Your task to perform on an android device: remove spam from my inbox in the gmail app Image 0: 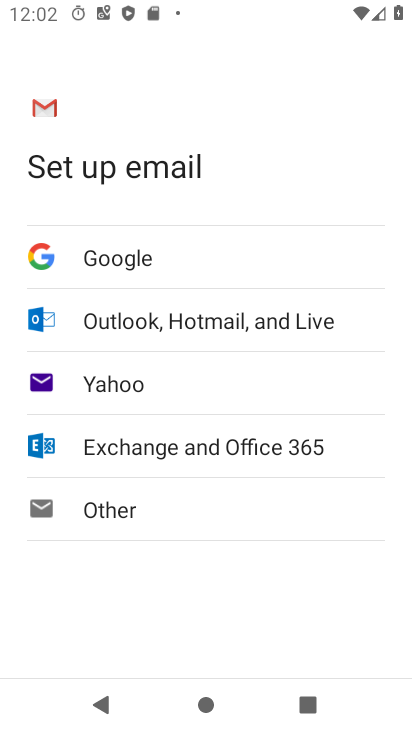
Step 0: press home button
Your task to perform on an android device: remove spam from my inbox in the gmail app Image 1: 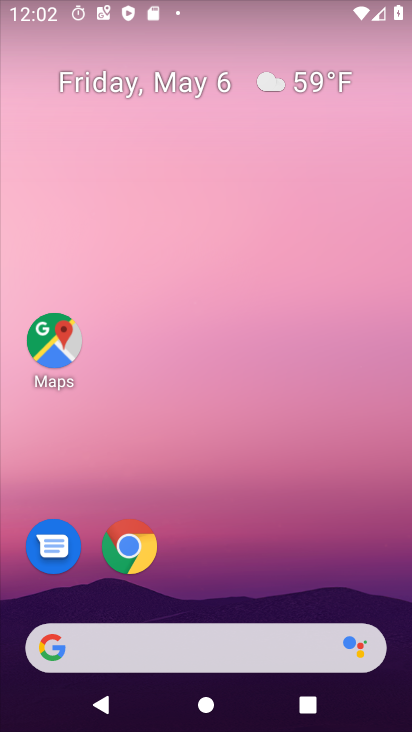
Step 1: drag from (274, 542) to (233, 82)
Your task to perform on an android device: remove spam from my inbox in the gmail app Image 2: 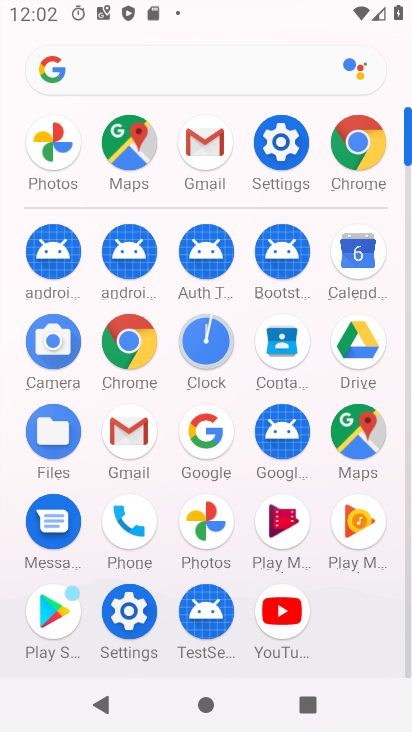
Step 2: click (130, 436)
Your task to perform on an android device: remove spam from my inbox in the gmail app Image 3: 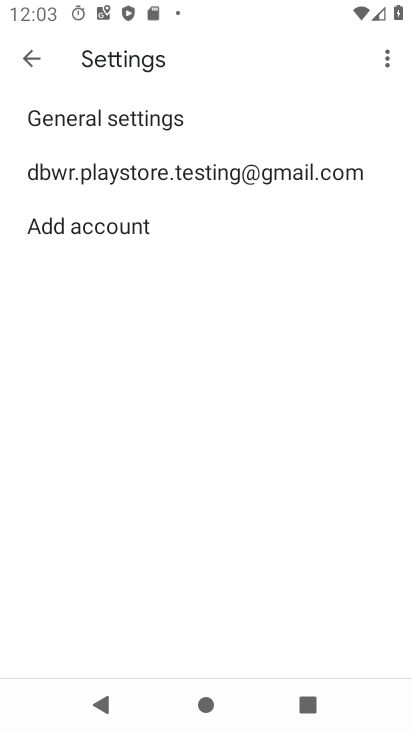
Step 3: click (33, 60)
Your task to perform on an android device: remove spam from my inbox in the gmail app Image 4: 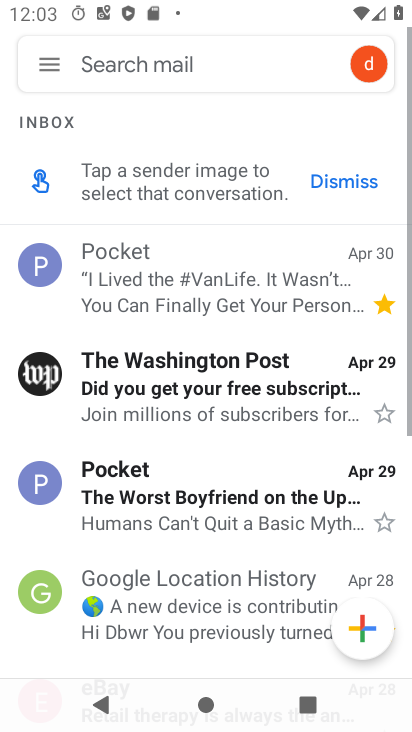
Step 4: click (48, 59)
Your task to perform on an android device: remove spam from my inbox in the gmail app Image 5: 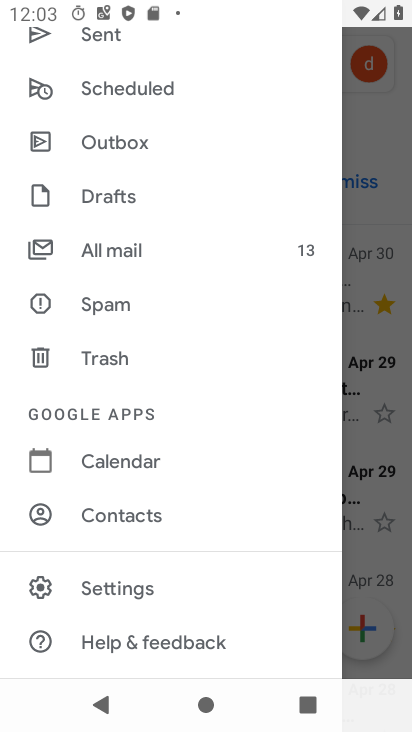
Step 5: click (134, 299)
Your task to perform on an android device: remove spam from my inbox in the gmail app Image 6: 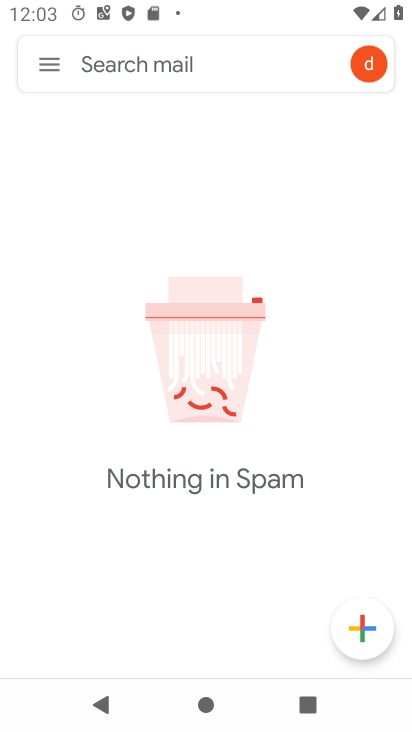
Step 6: task complete